Your task to perform on an android device: turn on the 12-hour format for clock Image 0: 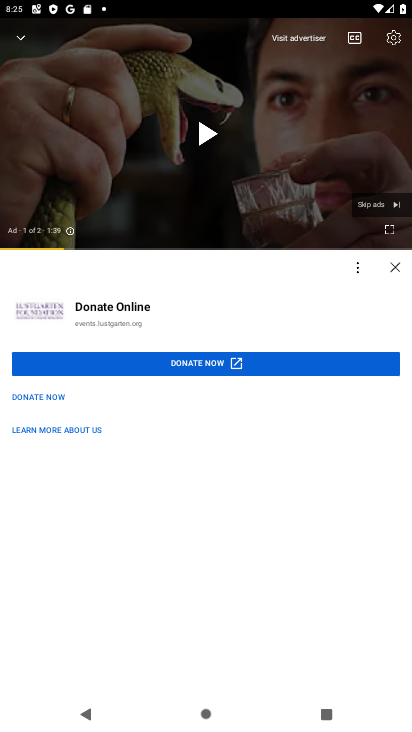
Step 0: press home button
Your task to perform on an android device: turn on the 12-hour format for clock Image 1: 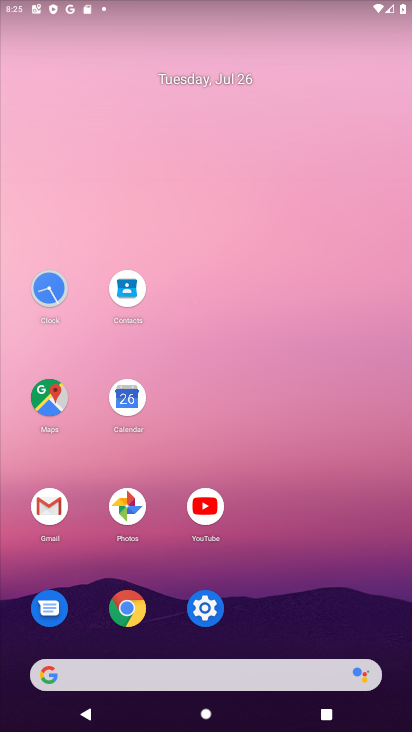
Step 1: click (49, 287)
Your task to perform on an android device: turn on the 12-hour format for clock Image 2: 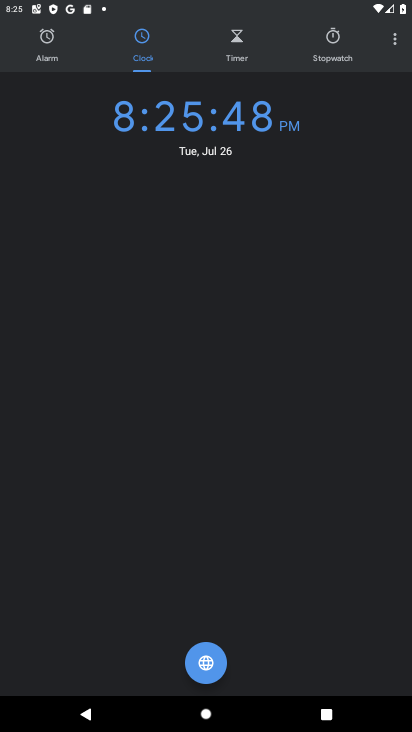
Step 2: click (394, 43)
Your task to perform on an android device: turn on the 12-hour format for clock Image 3: 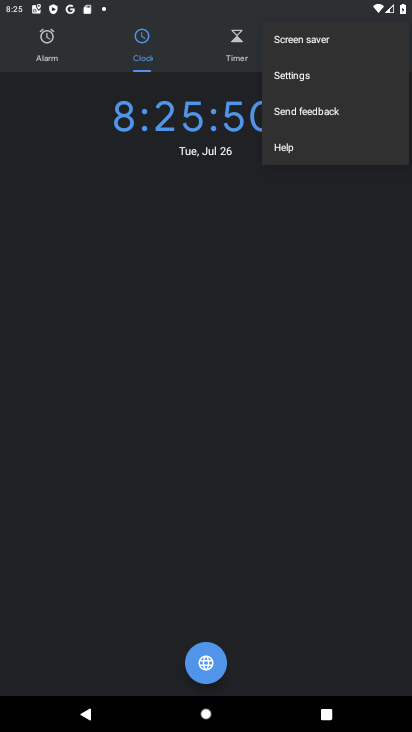
Step 3: click (296, 79)
Your task to perform on an android device: turn on the 12-hour format for clock Image 4: 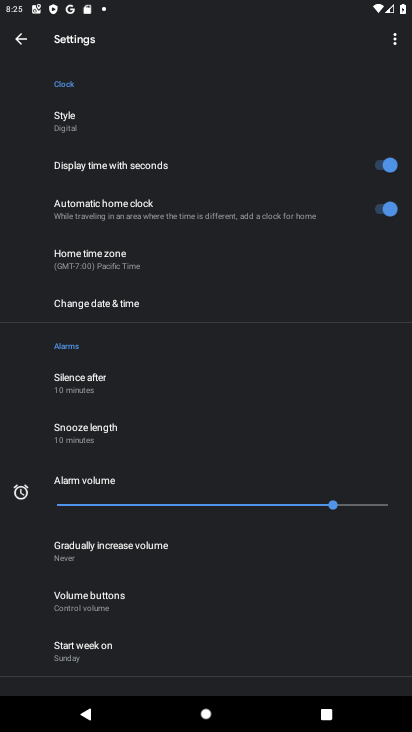
Step 4: click (96, 302)
Your task to perform on an android device: turn on the 12-hour format for clock Image 5: 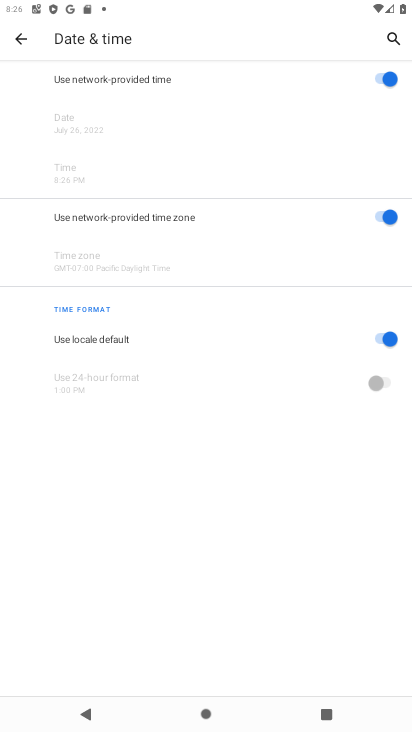
Step 5: task complete